Your task to perform on an android device: Open the map Image 0: 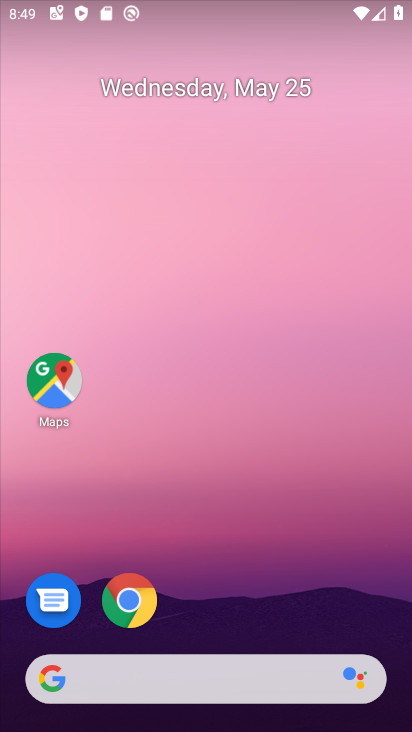
Step 0: drag from (252, 577) to (219, 0)
Your task to perform on an android device: Open the map Image 1: 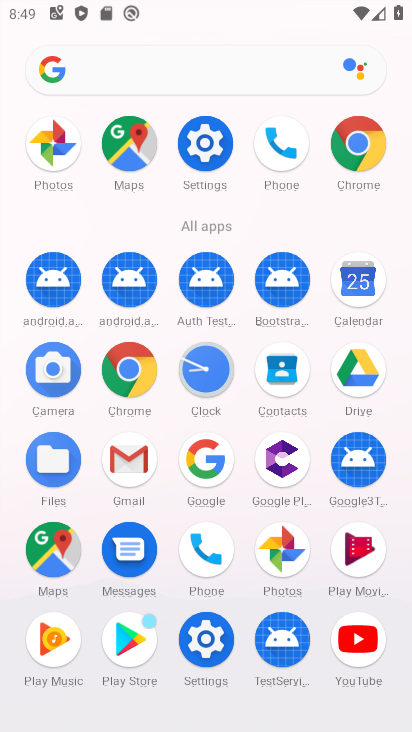
Step 1: drag from (2, 537) to (10, 318)
Your task to perform on an android device: Open the map Image 2: 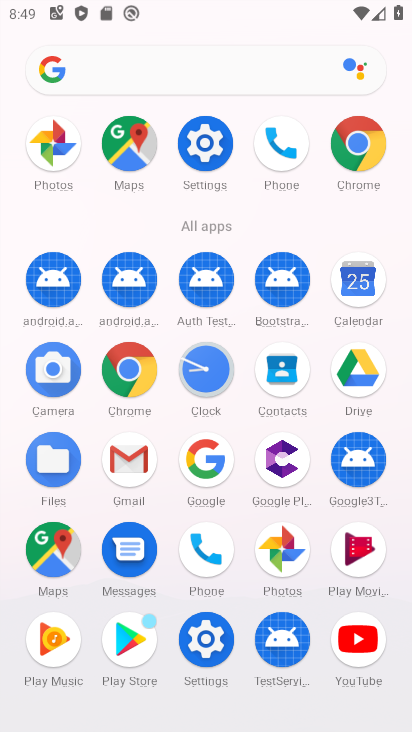
Step 2: click (52, 547)
Your task to perform on an android device: Open the map Image 3: 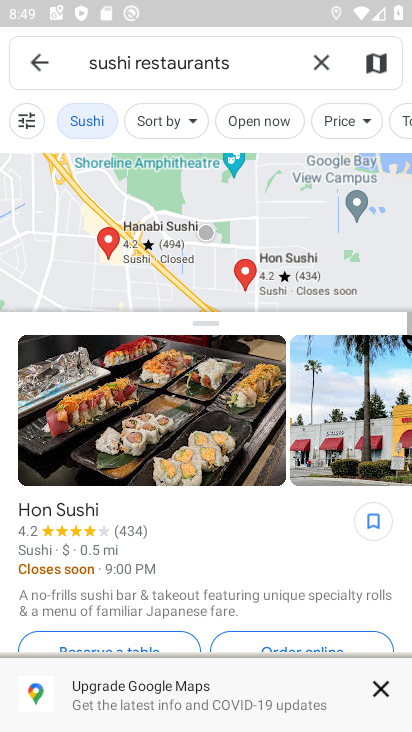
Step 3: click (315, 53)
Your task to perform on an android device: Open the map Image 4: 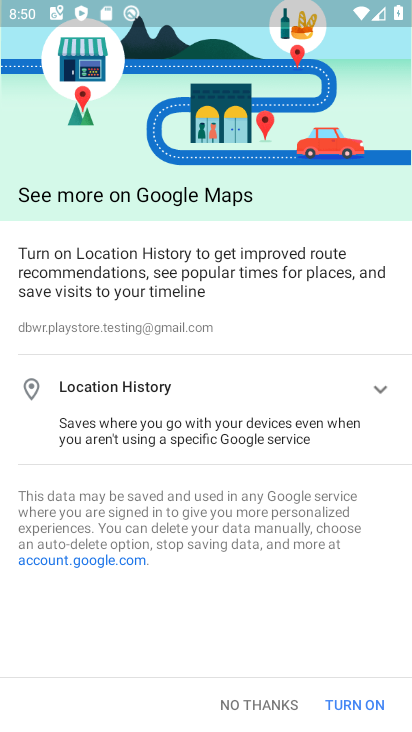
Step 4: click (358, 700)
Your task to perform on an android device: Open the map Image 5: 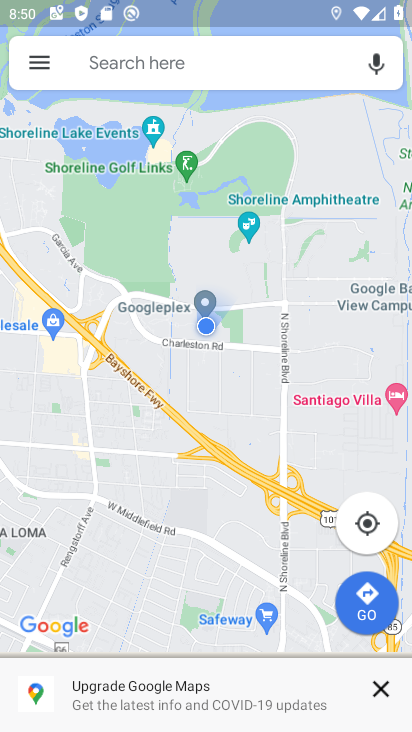
Step 5: task complete